Your task to perform on an android device: Open Google Maps and go to "Timeline" Image 0: 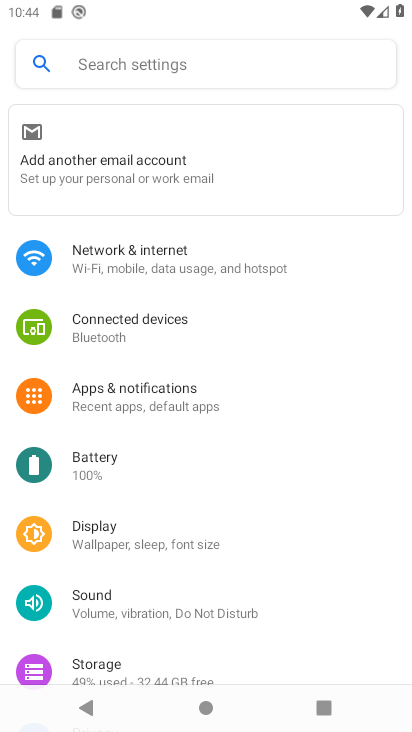
Step 0: press home button
Your task to perform on an android device: Open Google Maps and go to "Timeline" Image 1: 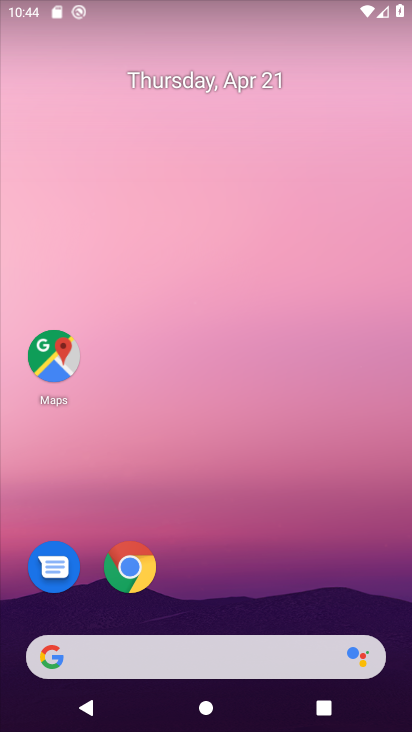
Step 1: click (60, 357)
Your task to perform on an android device: Open Google Maps and go to "Timeline" Image 2: 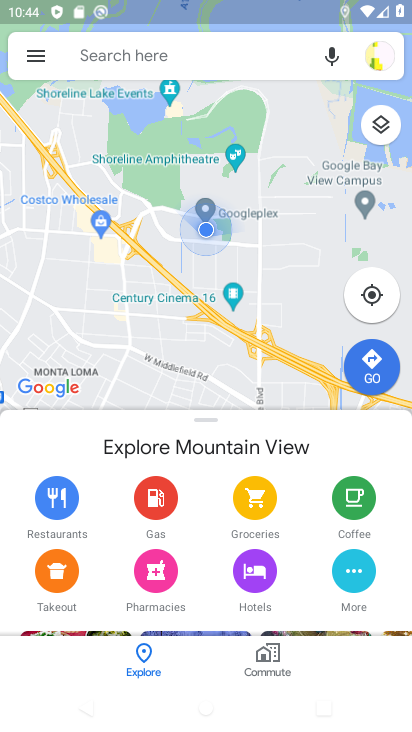
Step 2: click (39, 59)
Your task to perform on an android device: Open Google Maps and go to "Timeline" Image 3: 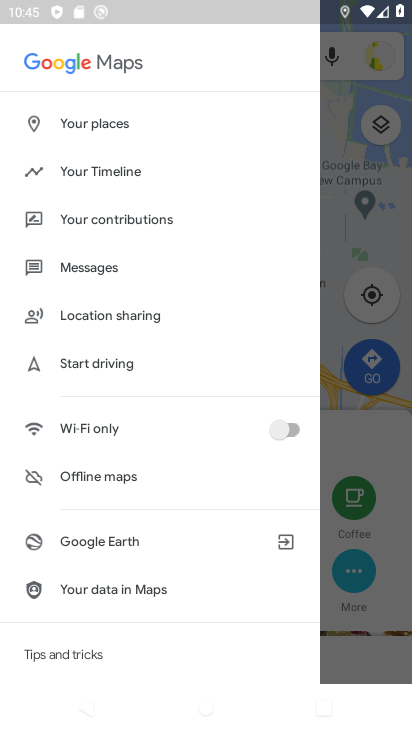
Step 3: click (115, 181)
Your task to perform on an android device: Open Google Maps and go to "Timeline" Image 4: 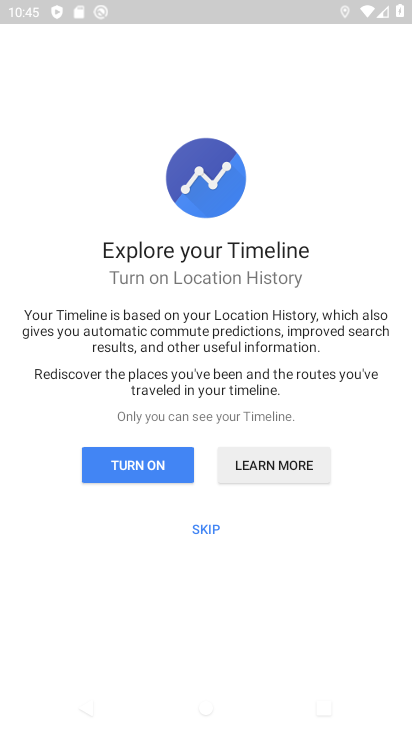
Step 4: click (207, 524)
Your task to perform on an android device: Open Google Maps and go to "Timeline" Image 5: 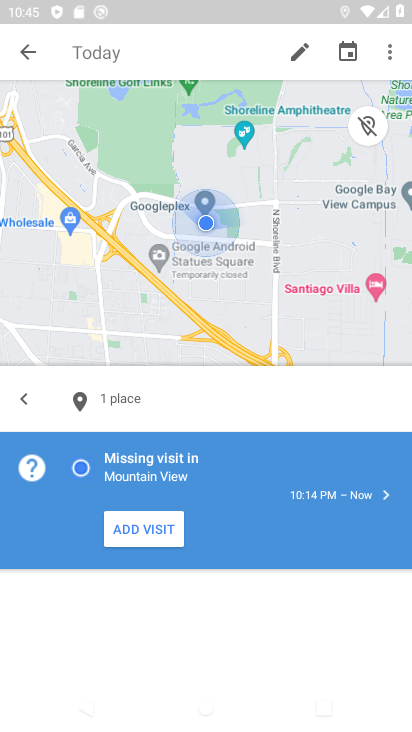
Step 5: task complete